Your task to perform on an android device: Show me productivity apps on the Play Store Image 0: 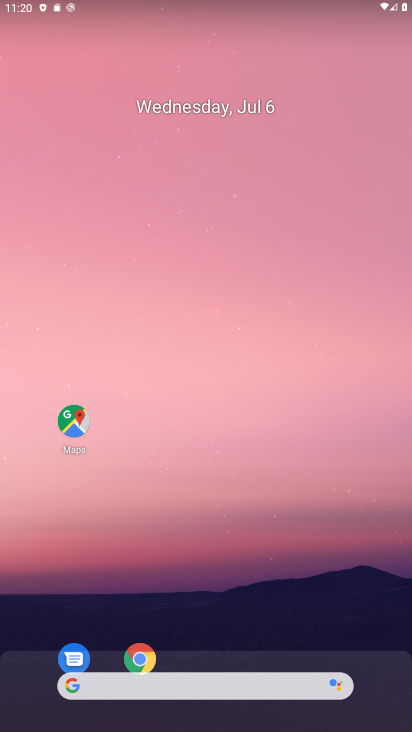
Step 0: click (320, 7)
Your task to perform on an android device: Show me productivity apps on the Play Store Image 1: 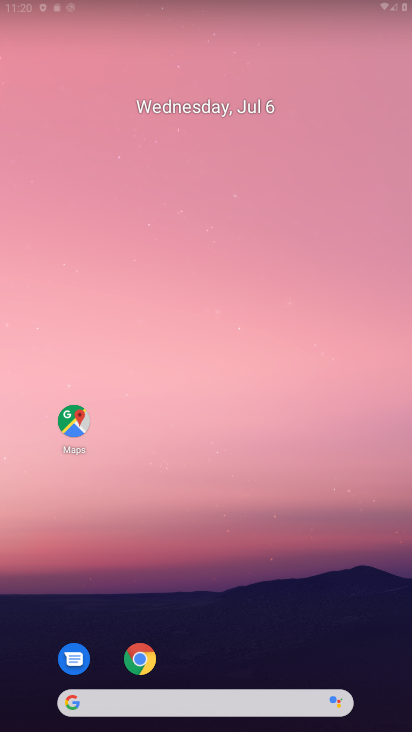
Step 1: drag from (214, 590) to (262, 35)
Your task to perform on an android device: Show me productivity apps on the Play Store Image 2: 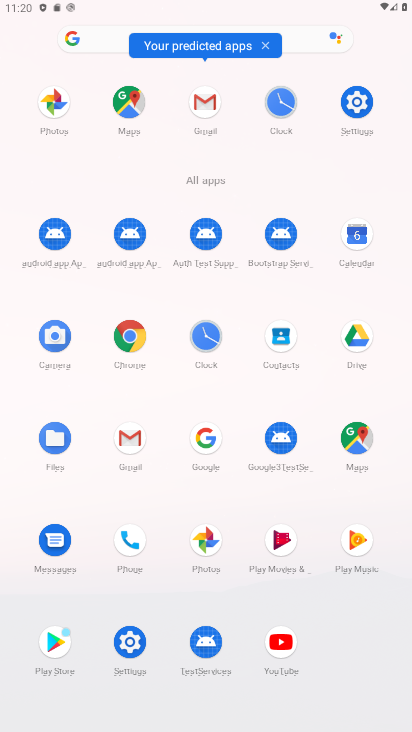
Step 2: click (53, 634)
Your task to perform on an android device: Show me productivity apps on the Play Store Image 3: 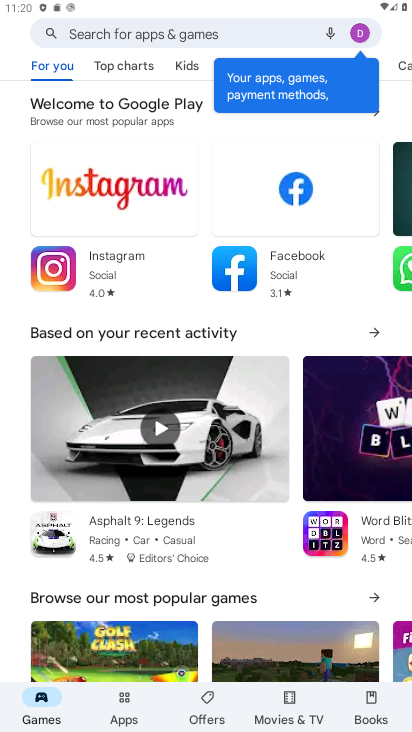
Step 3: click (131, 702)
Your task to perform on an android device: Show me productivity apps on the Play Store Image 4: 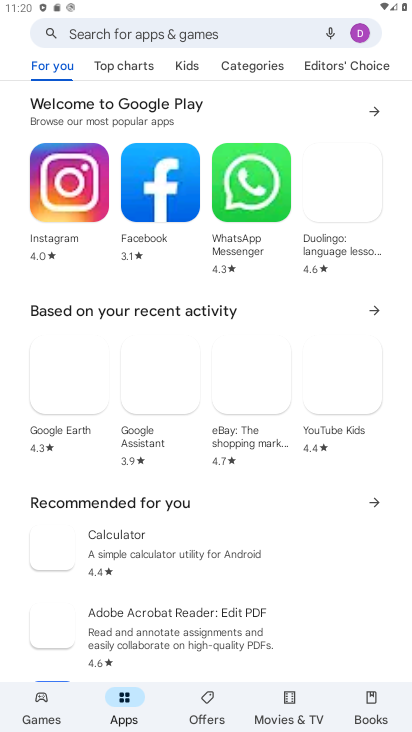
Step 4: click (261, 65)
Your task to perform on an android device: Show me productivity apps on the Play Store Image 5: 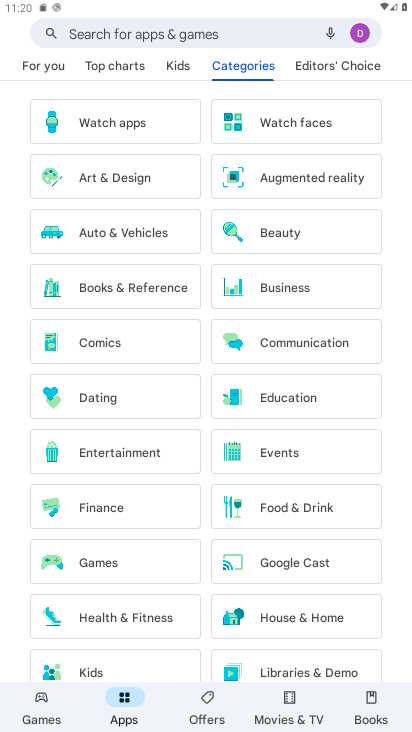
Step 5: drag from (221, 619) to (293, 155)
Your task to perform on an android device: Show me productivity apps on the Play Store Image 6: 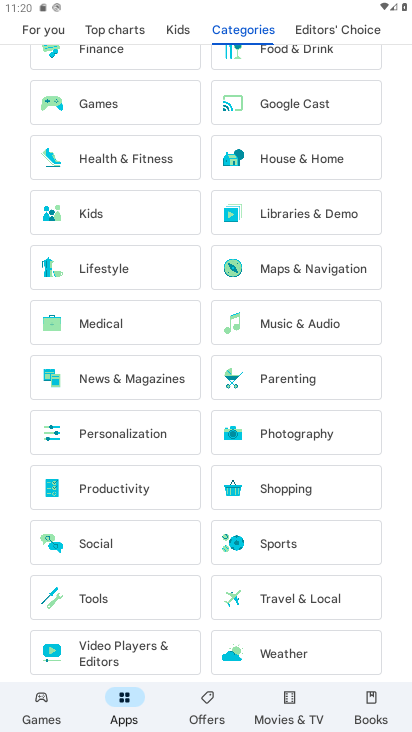
Step 6: click (121, 498)
Your task to perform on an android device: Show me productivity apps on the Play Store Image 7: 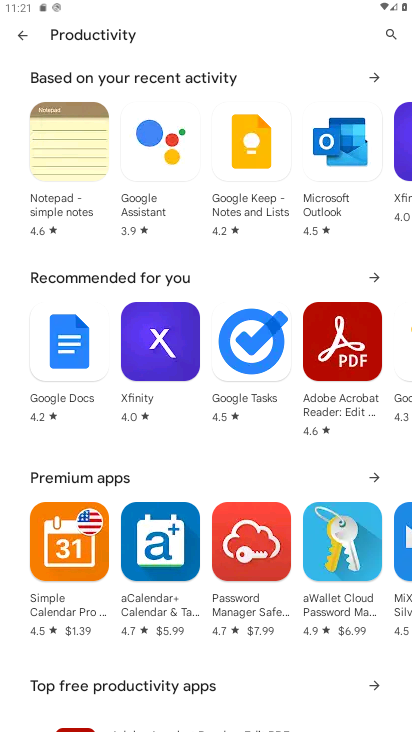
Step 7: task complete